Your task to perform on an android device: snooze an email in the gmail app Image 0: 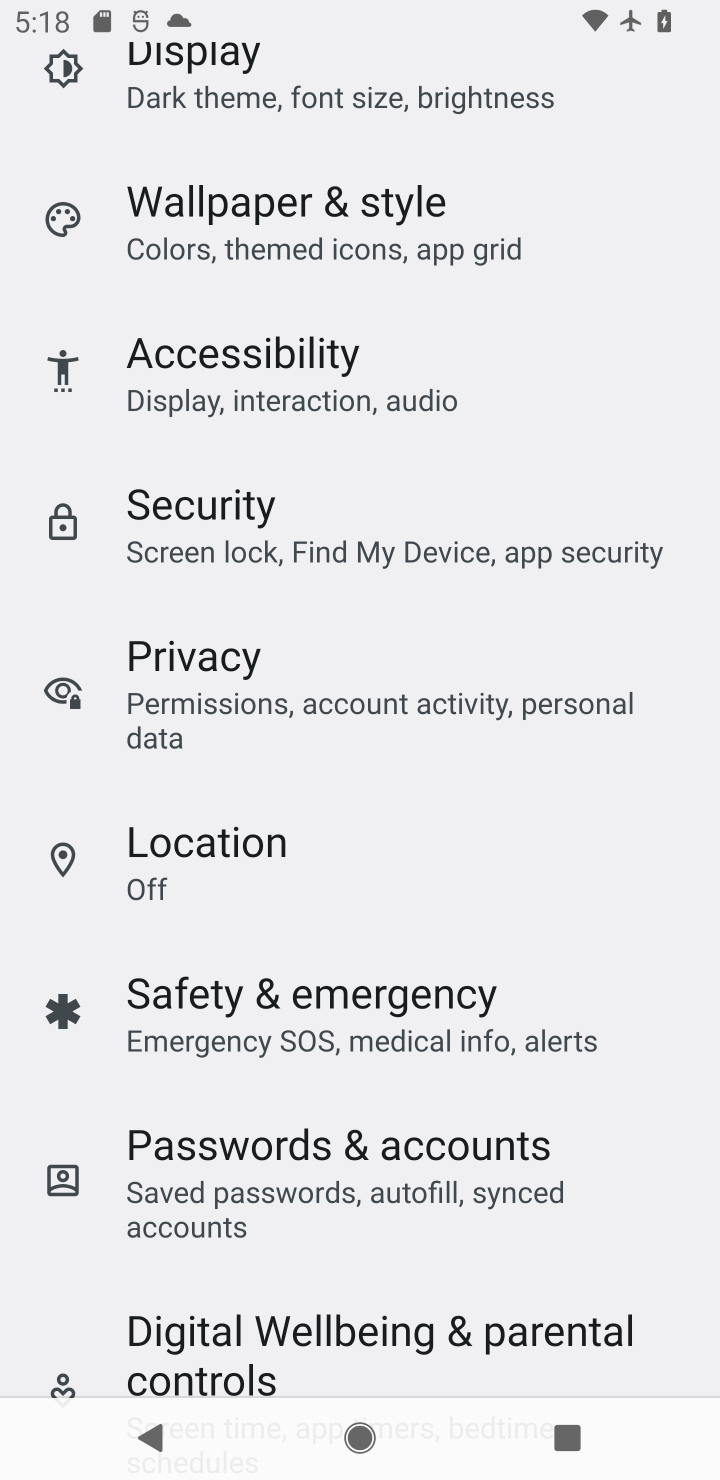
Step 0: press home button
Your task to perform on an android device: snooze an email in the gmail app Image 1: 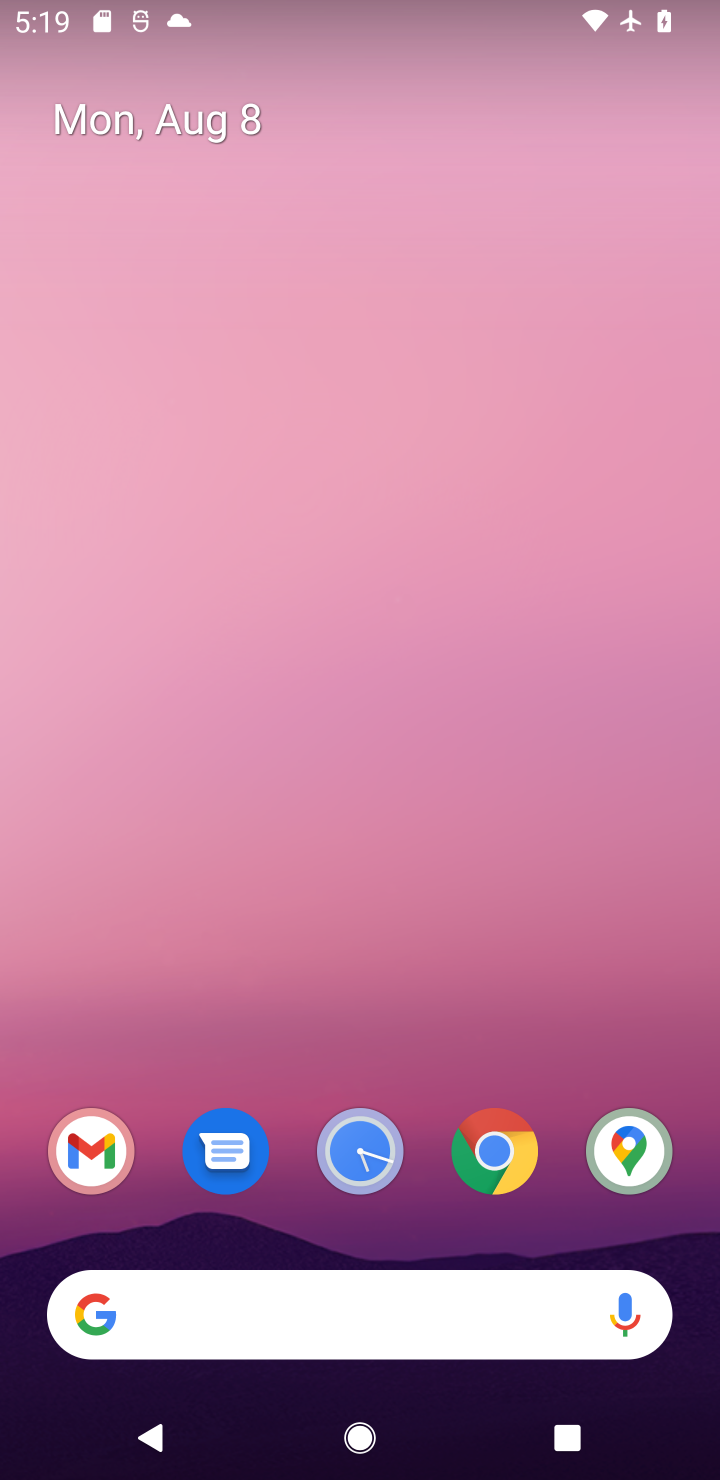
Step 1: click (117, 1149)
Your task to perform on an android device: snooze an email in the gmail app Image 2: 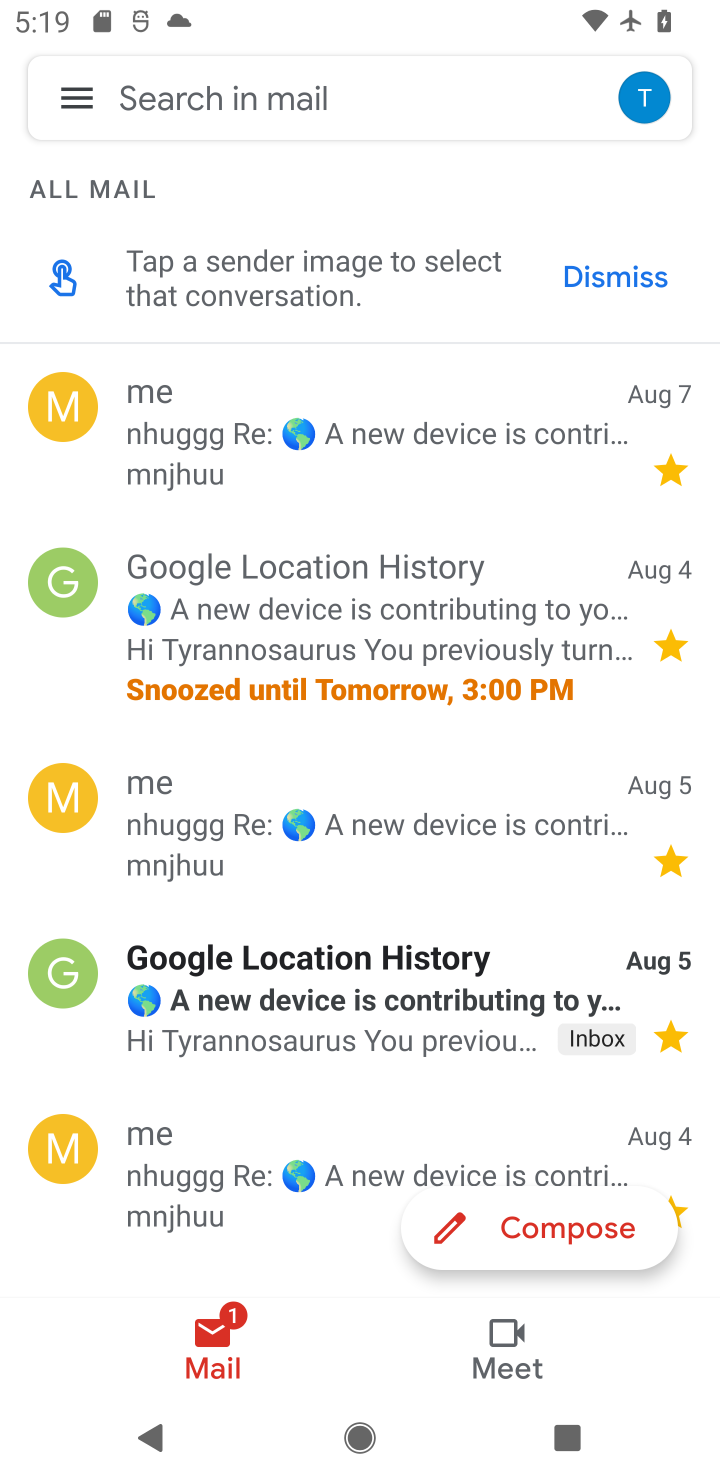
Step 2: click (374, 598)
Your task to perform on an android device: snooze an email in the gmail app Image 3: 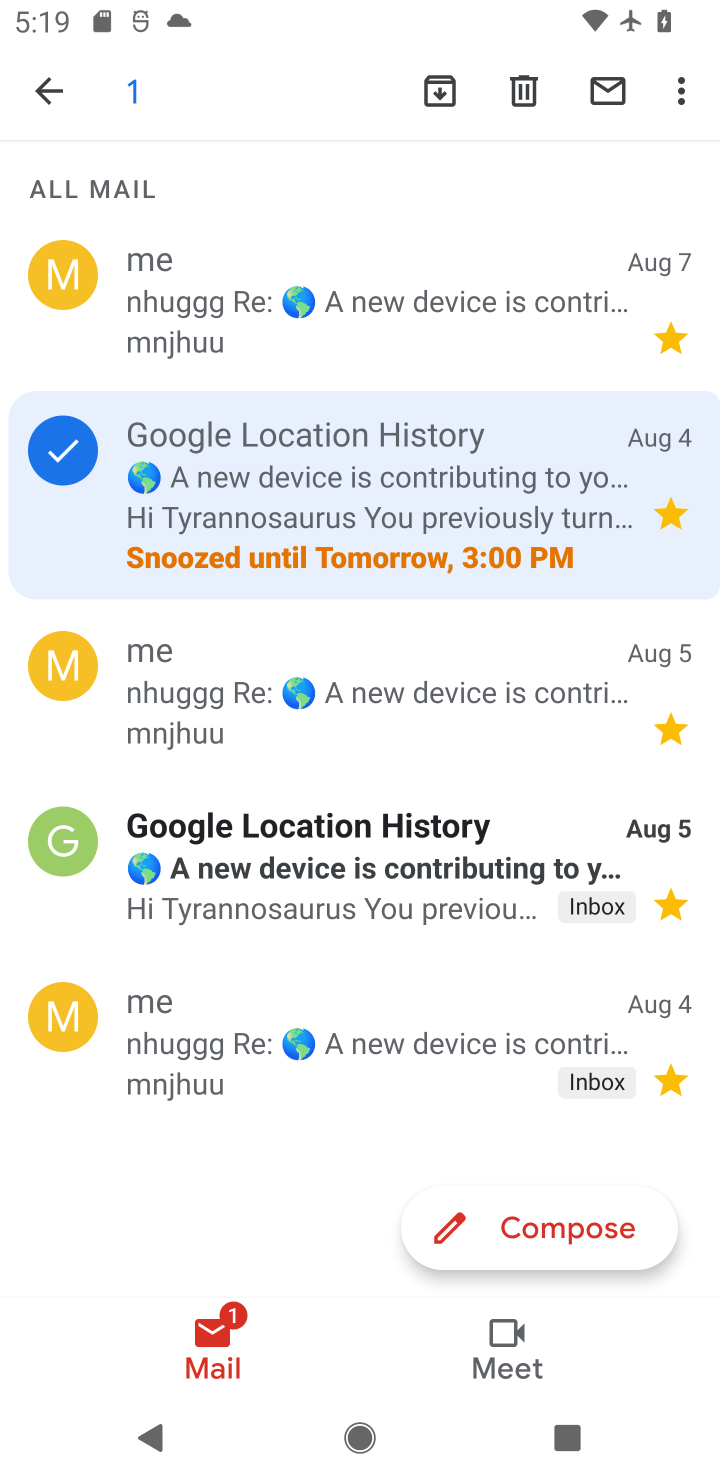
Step 3: click (670, 90)
Your task to perform on an android device: snooze an email in the gmail app Image 4: 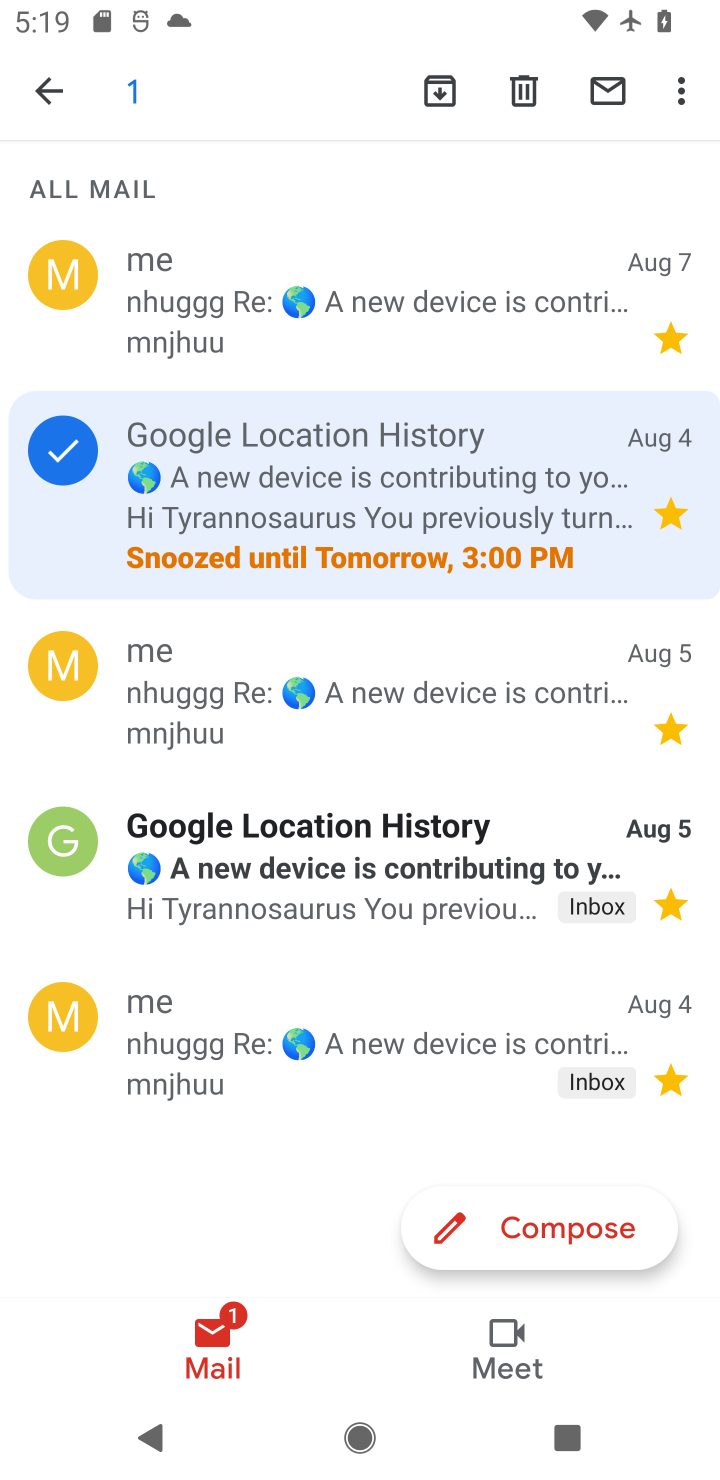
Step 4: click (683, 90)
Your task to perform on an android device: snooze an email in the gmail app Image 5: 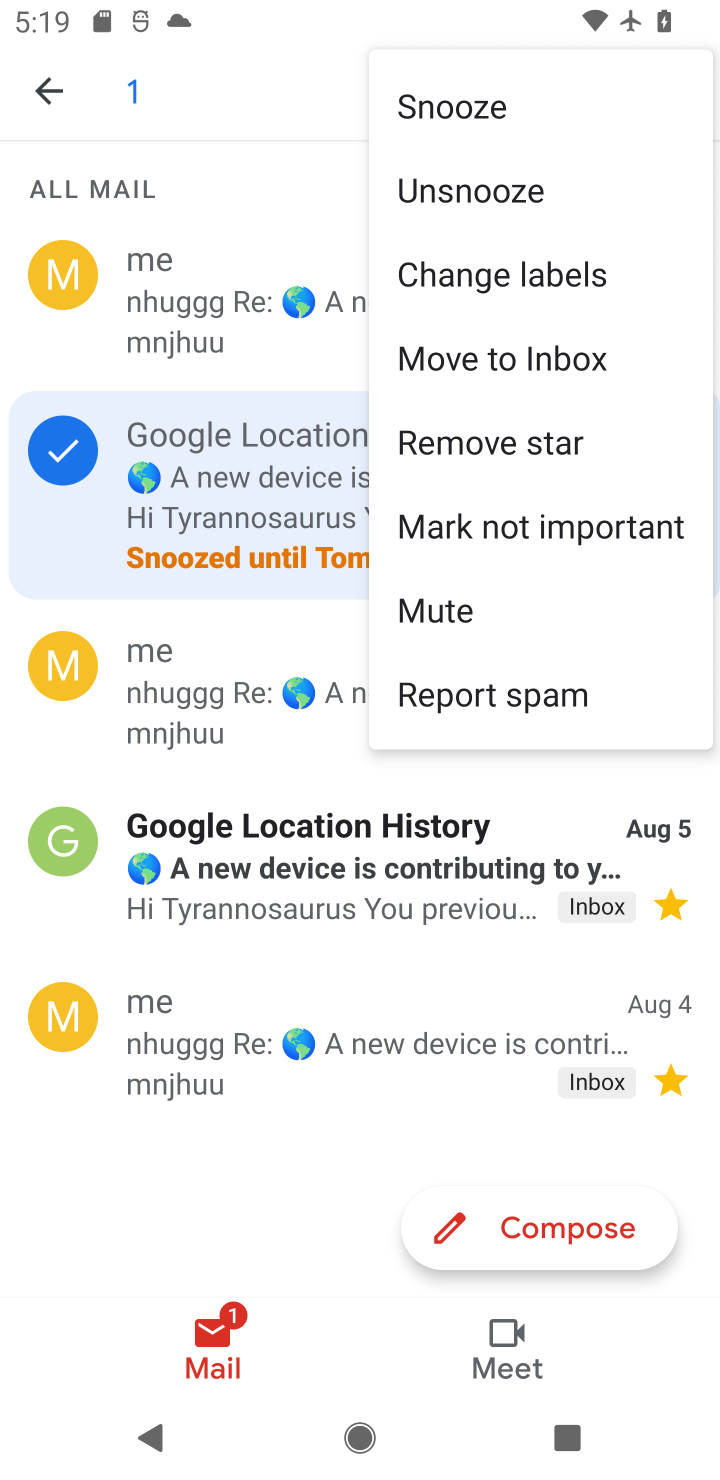
Step 5: click (432, 126)
Your task to perform on an android device: snooze an email in the gmail app Image 6: 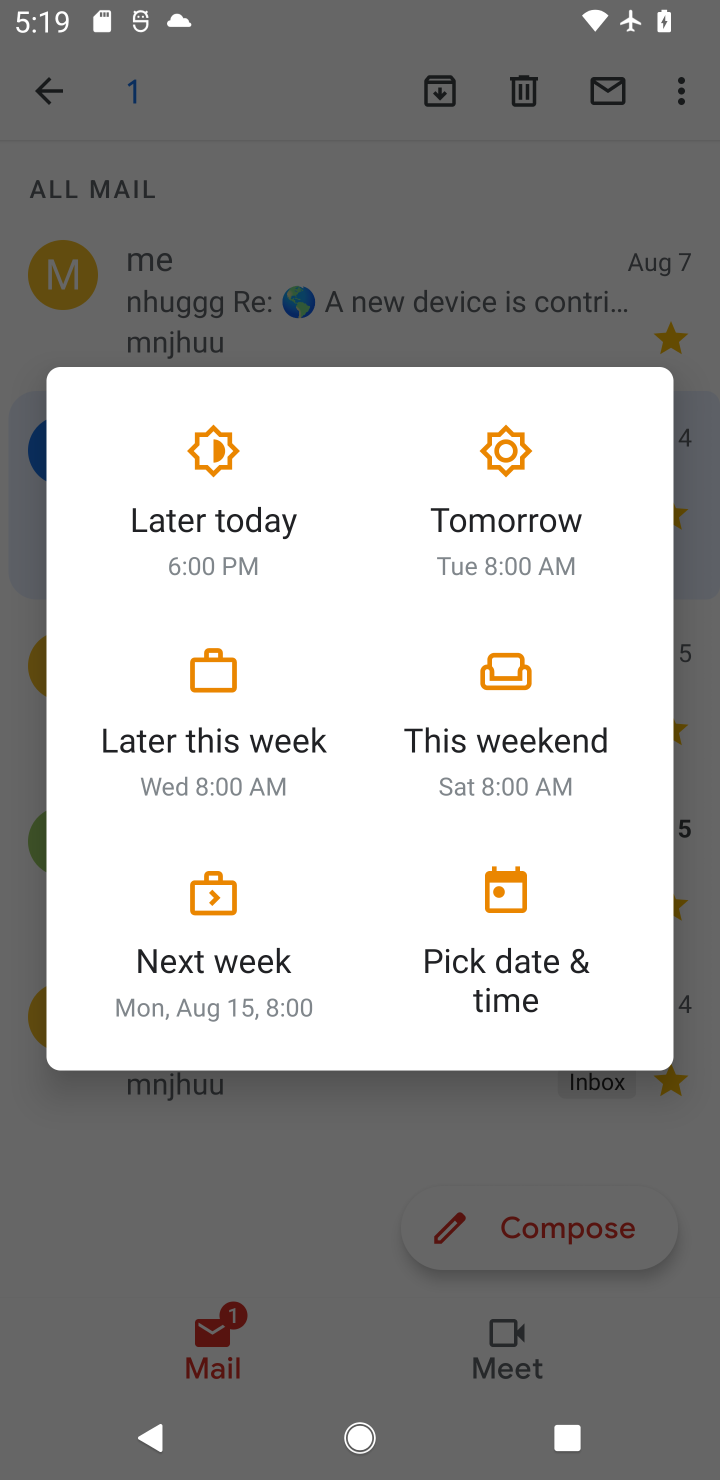
Step 6: click (283, 507)
Your task to perform on an android device: snooze an email in the gmail app Image 7: 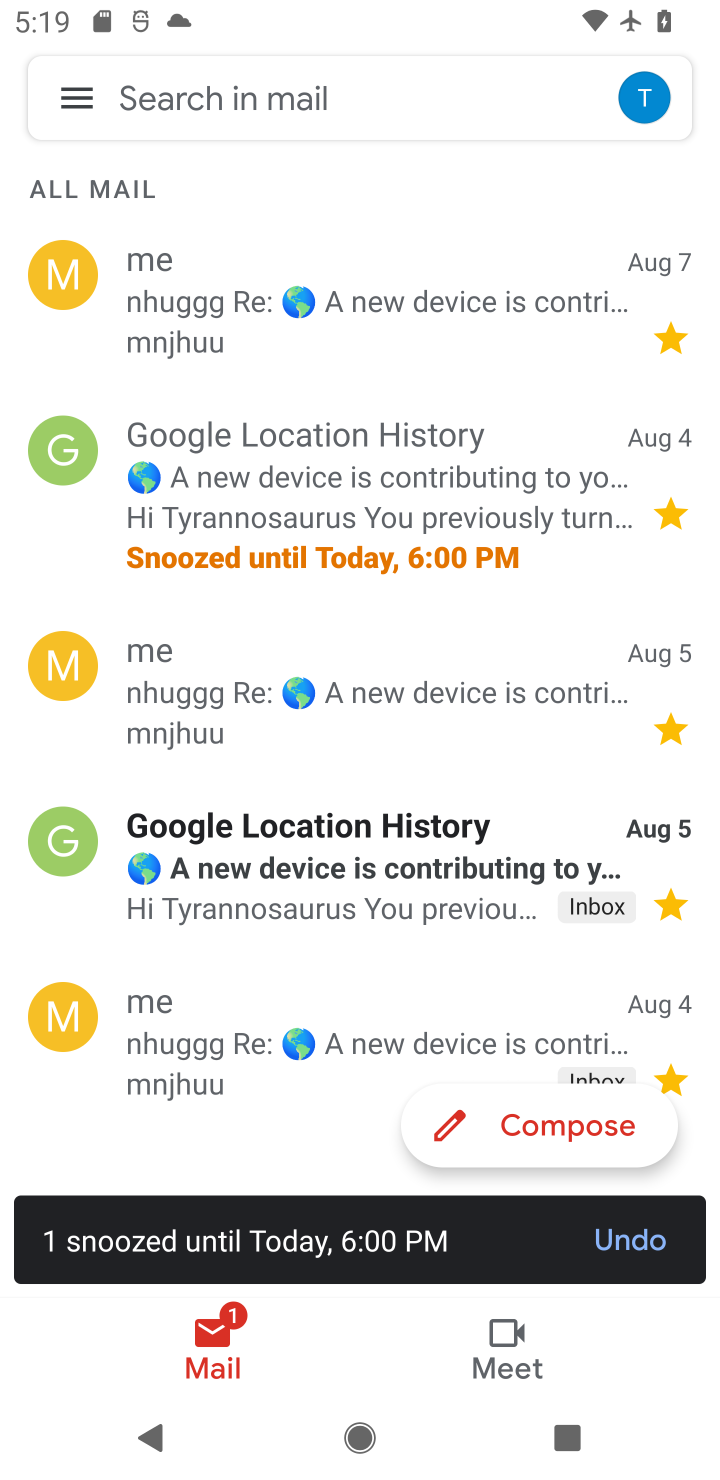
Step 7: task complete